Your task to perform on an android device: Open Youtube and go to "Your channel" Image 0: 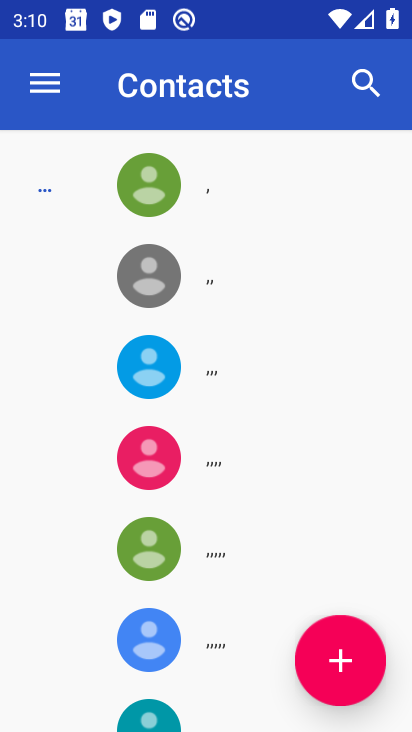
Step 0: press home button
Your task to perform on an android device: Open Youtube and go to "Your channel" Image 1: 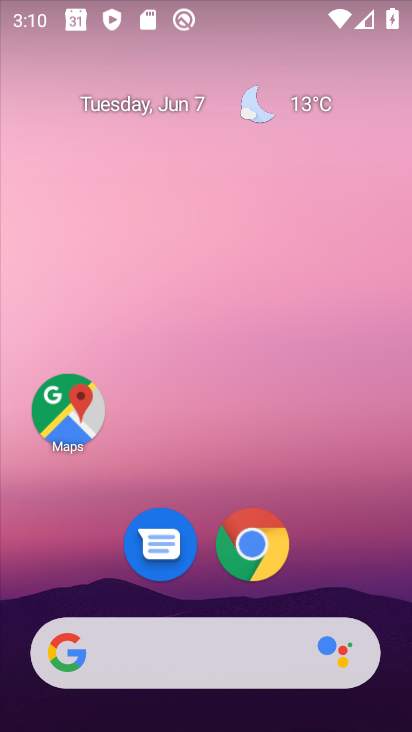
Step 1: drag from (206, 600) to (256, 102)
Your task to perform on an android device: Open Youtube and go to "Your channel" Image 2: 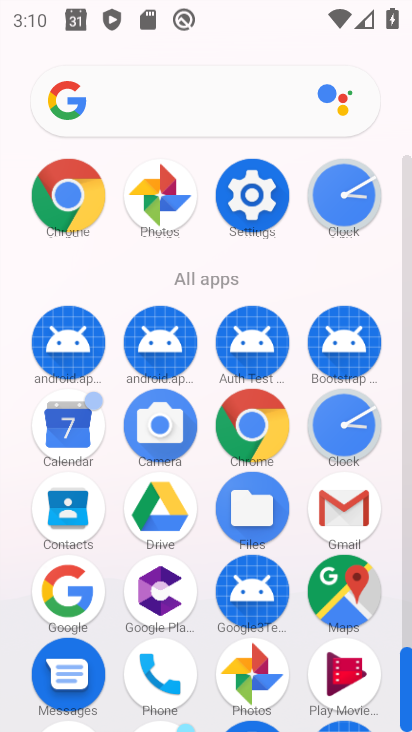
Step 2: drag from (302, 640) to (327, 213)
Your task to perform on an android device: Open Youtube and go to "Your channel" Image 3: 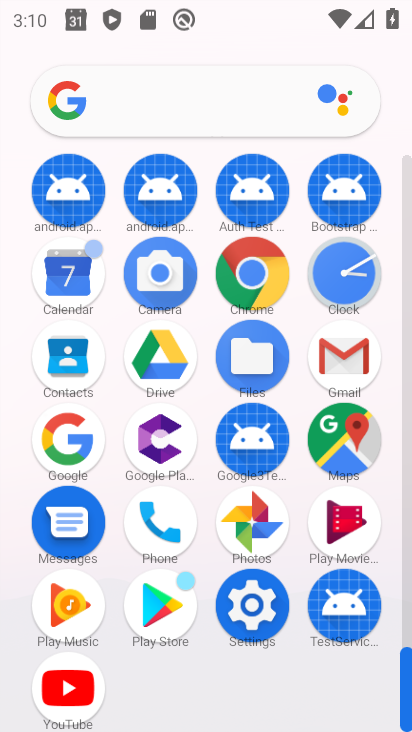
Step 3: click (64, 680)
Your task to perform on an android device: Open Youtube and go to "Your channel" Image 4: 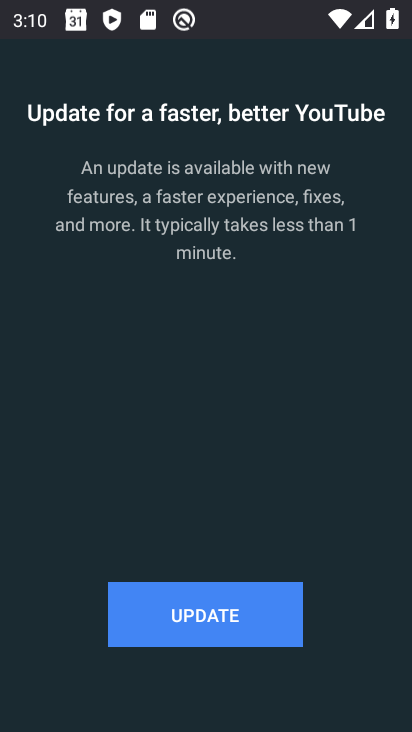
Step 4: click (206, 610)
Your task to perform on an android device: Open Youtube and go to "Your channel" Image 5: 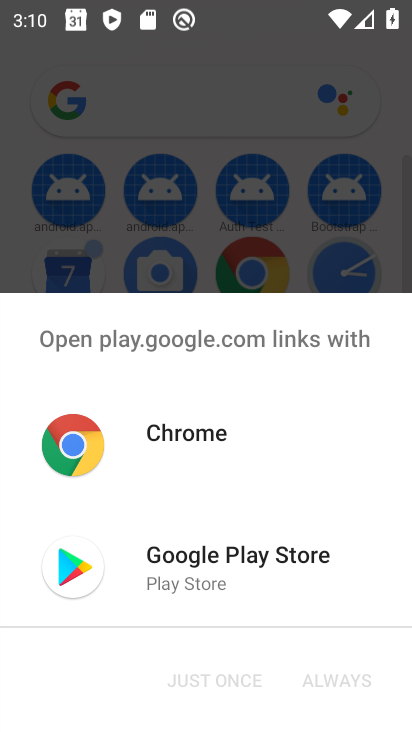
Step 5: click (180, 576)
Your task to perform on an android device: Open Youtube and go to "Your channel" Image 6: 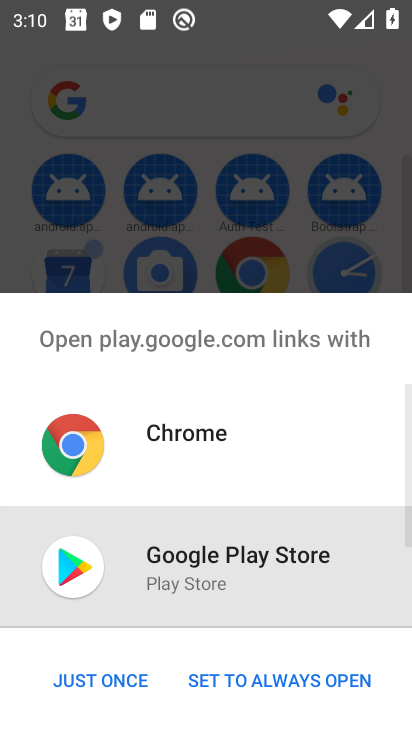
Step 6: click (332, 681)
Your task to perform on an android device: Open Youtube and go to "Your channel" Image 7: 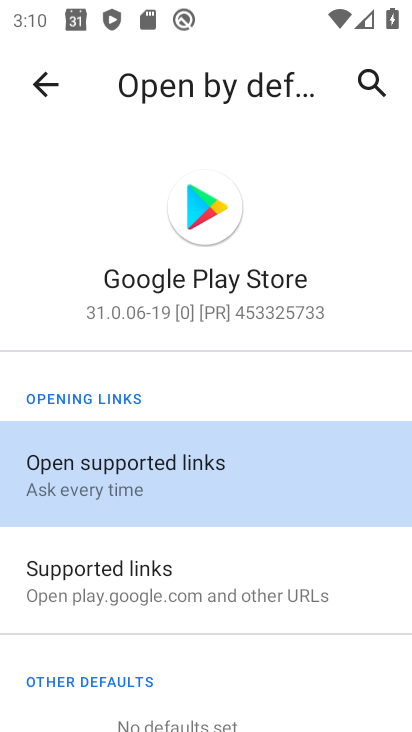
Step 7: click (48, 86)
Your task to perform on an android device: Open Youtube and go to "Your channel" Image 8: 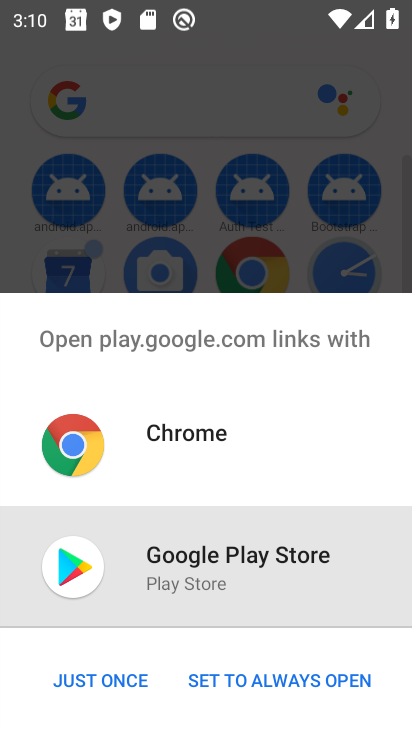
Step 8: click (111, 683)
Your task to perform on an android device: Open Youtube and go to "Your channel" Image 9: 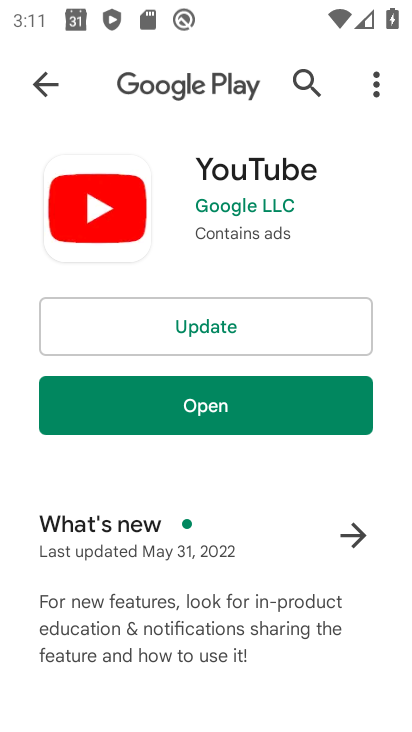
Step 9: click (213, 326)
Your task to perform on an android device: Open Youtube and go to "Your channel" Image 10: 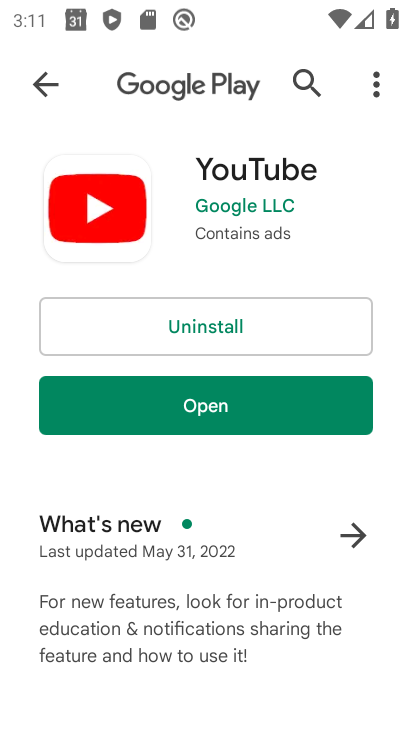
Step 10: click (242, 403)
Your task to perform on an android device: Open Youtube and go to "Your channel" Image 11: 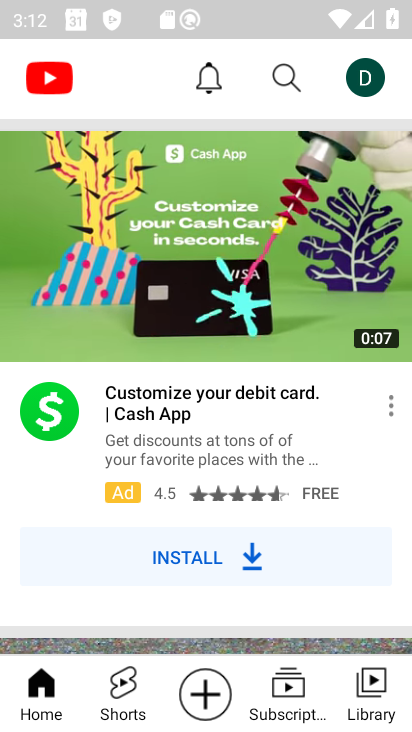
Step 11: click (360, 81)
Your task to perform on an android device: Open Youtube and go to "Your channel" Image 12: 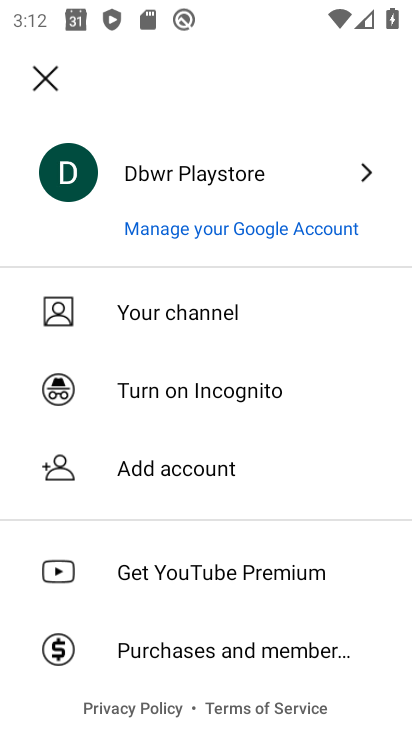
Step 12: click (172, 316)
Your task to perform on an android device: Open Youtube and go to "Your channel" Image 13: 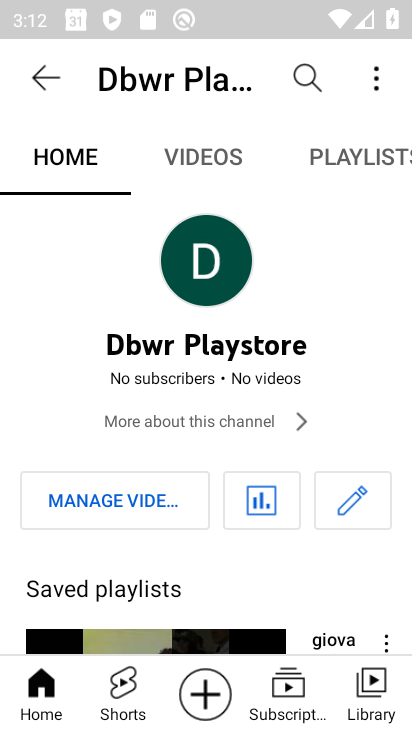
Step 13: task complete